Your task to perform on an android device: Do I have any events today? Image 0: 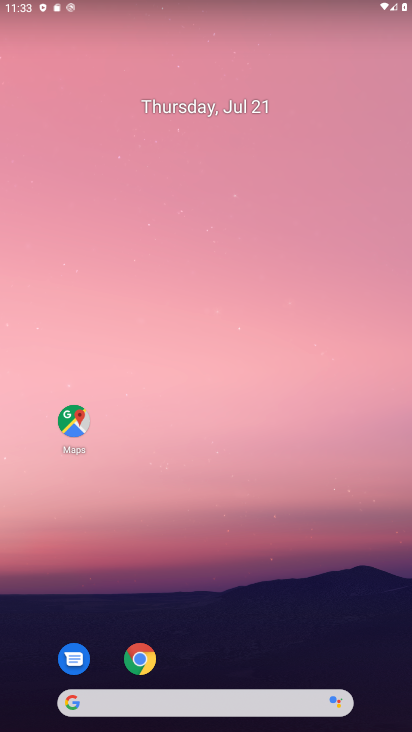
Step 0: drag from (278, 663) to (308, 48)
Your task to perform on an android device: Do I have any events today? Image 1: 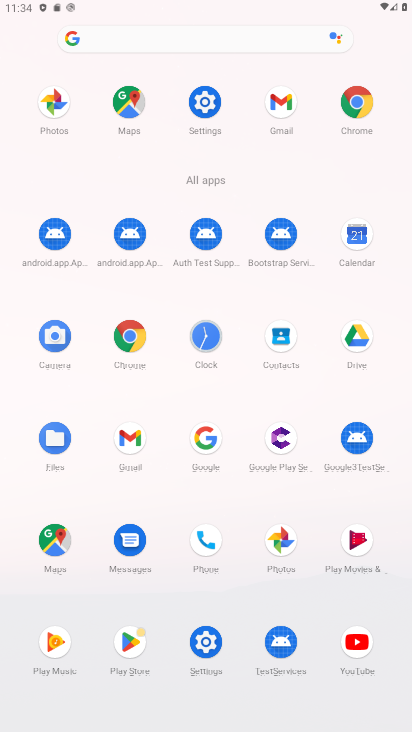
Step 1: task complete